Your task to perform on an android device: Search for the best selling jewelry on Etsy. Image 0: 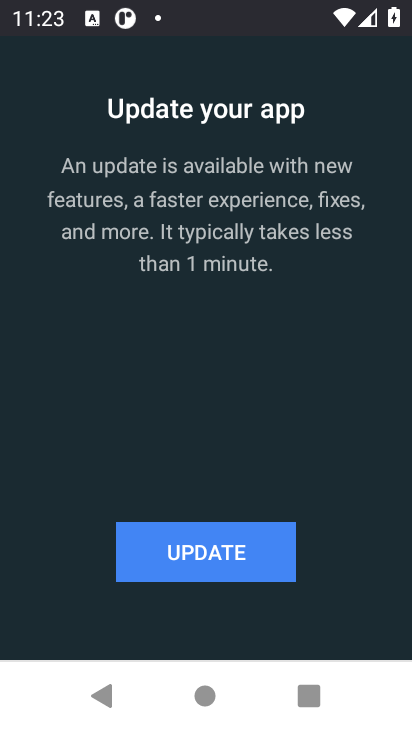
Step 0: press home button
Your task to perform on an android device: Search for the best selling jewelry on Etsy. Image 1: 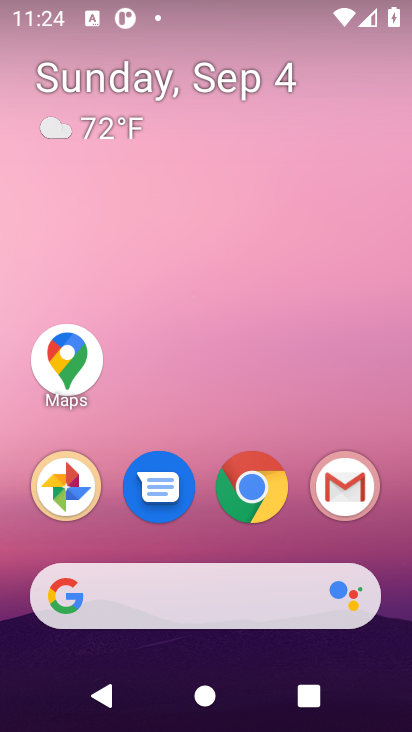
Step 1: click (195, 610)
Your task to perform on an android device: Search for the best selling jewelry on Etsy. Image 2: 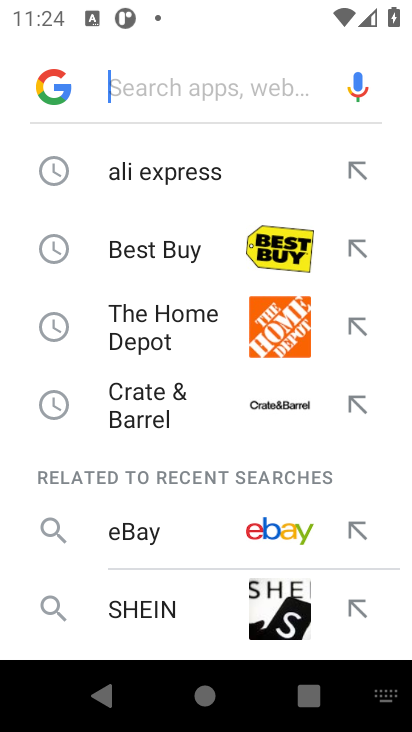
Step 2: type "etsy"
Your task to perform on an android device: Search for the best selling jewelry on Etsy. Image 3: 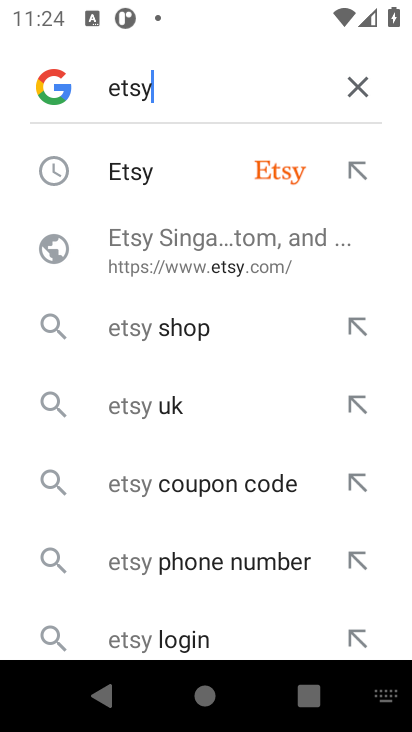
Step 3: click (267, 187)
Your task to perform on an android device: Search for the best selling jewelry on Etsy. Image 4: 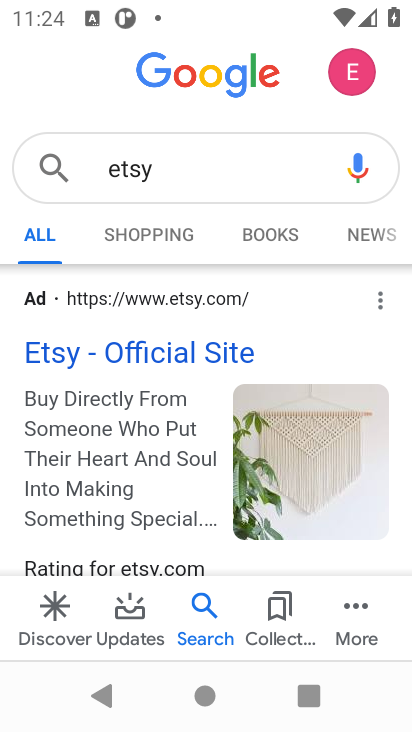
Step 4: click (119, 349)
Your task to perform on an android device: Search for the best selling jewelry on Etsy. Image 5: 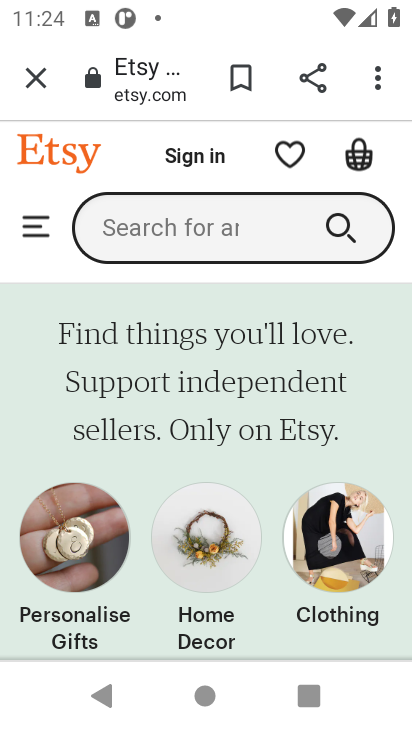
Step 5: click (212, 229)
Your task to perform on an android device: Search for the best selling jewelry on Etsy. Image 6: 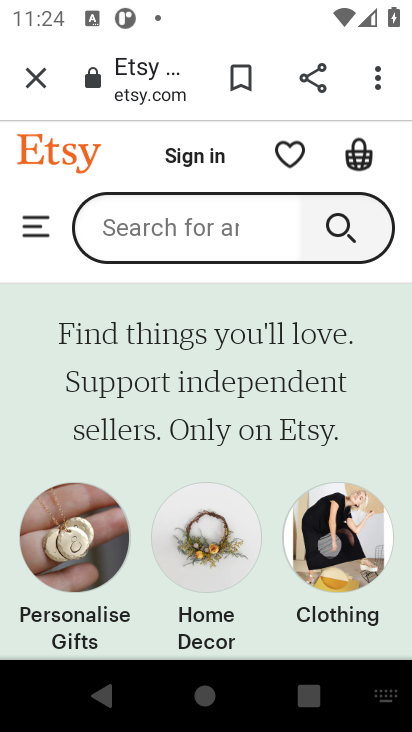
Step 6: type " best selling jewelry "
Your task to perform on an android device: Search for the best selling jewelry on Etsy. Image 7: 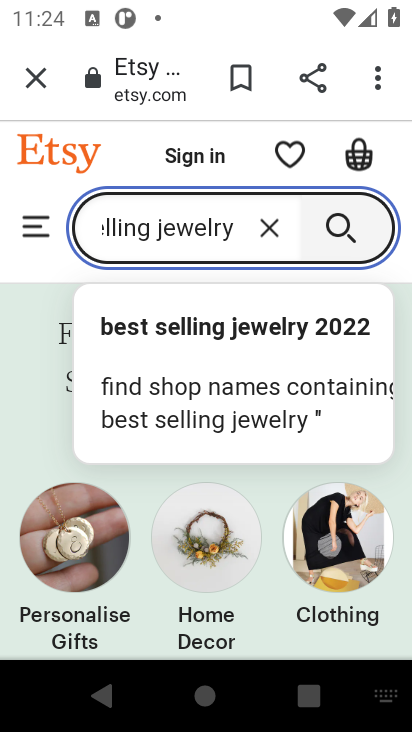
Step 7: click (345, 224)
Your task to perform on an android device: Search for the best selling jewelry on Etsy. Image 8: 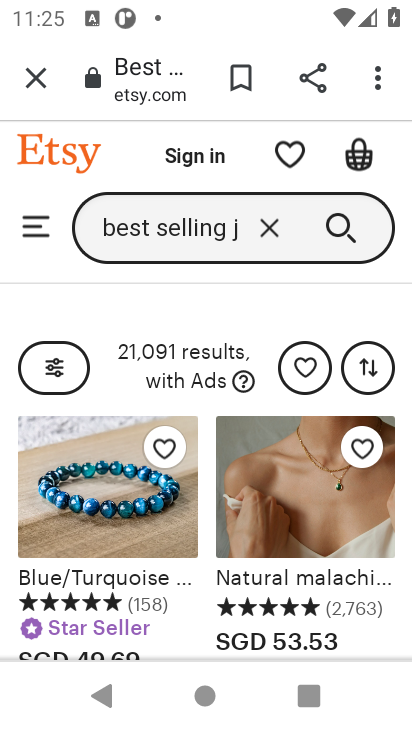
Step 8: task complete